Your task to perform on an android device: check the backup settings in the google photos Image 0: 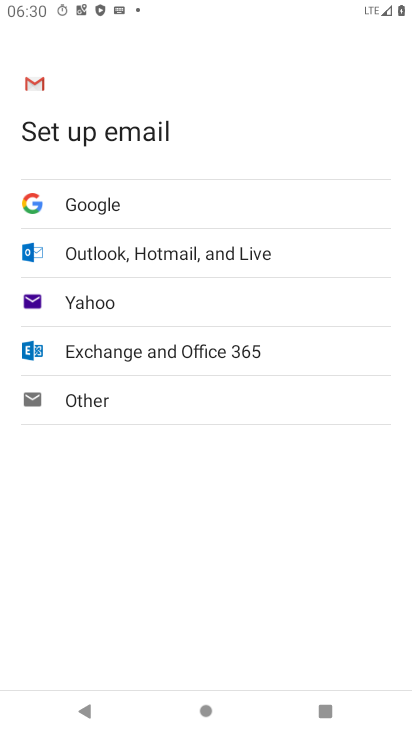
Step 0: press home button
Your task to perform on an android device: check the backup settings in the google photos Image 1: 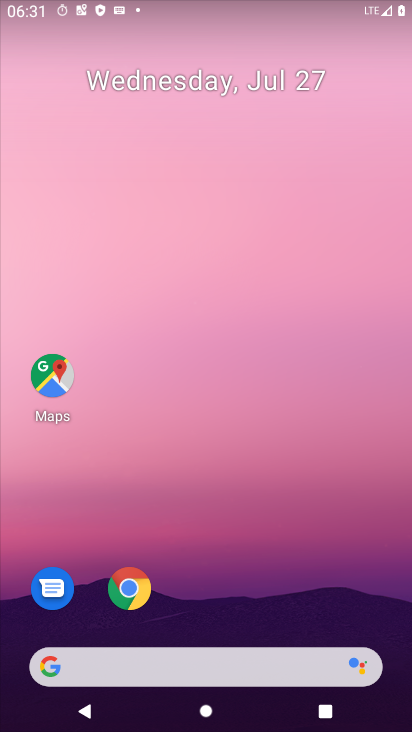
Step 1: drag from (329, 655) to (355, 133)
Your task to perform on an android device: check the backup settings in the google photos Image 2: 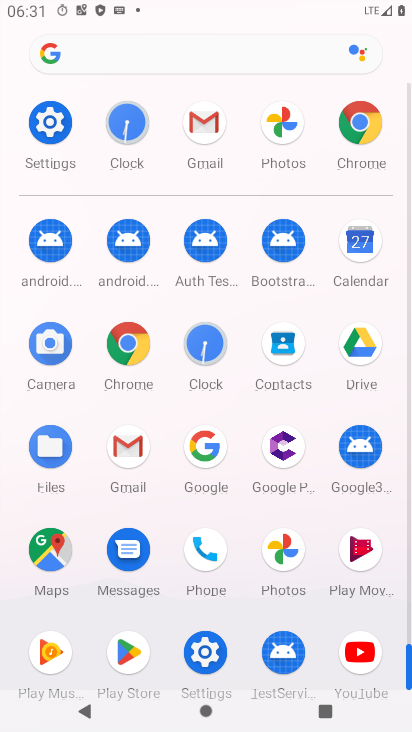
Step 2: click (277, 540)
Your task to perform on an android device: check the backup settings in the google photos Image 3: 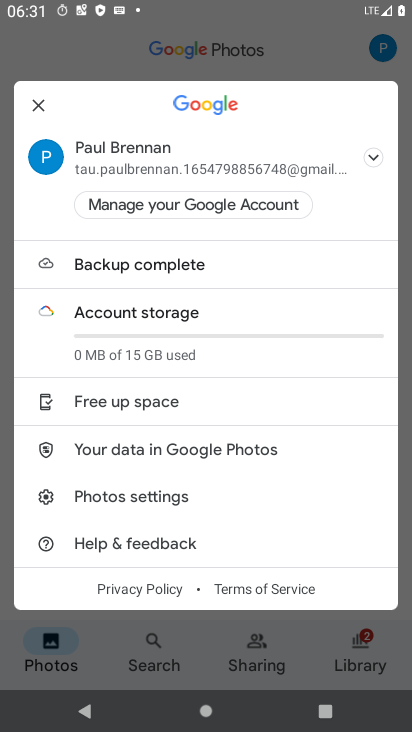
Step 3: click (186, 494)
Your task to perform on an android device: check the backup settings in the google photos Image 4: 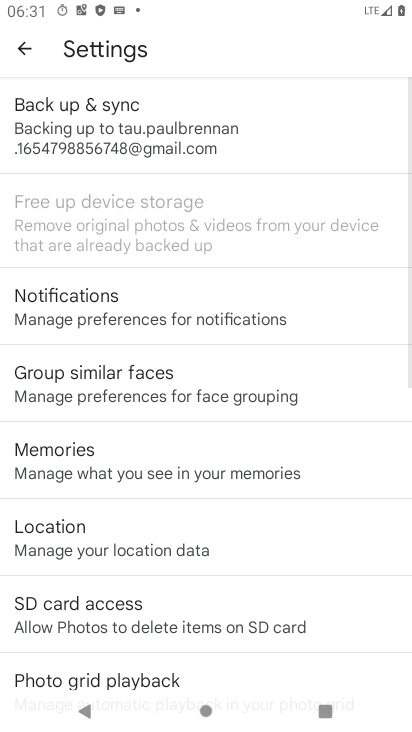
Step 4: click (232, 162)
Your task to perform on an android device: check the backup settings in the google photos Image 5: 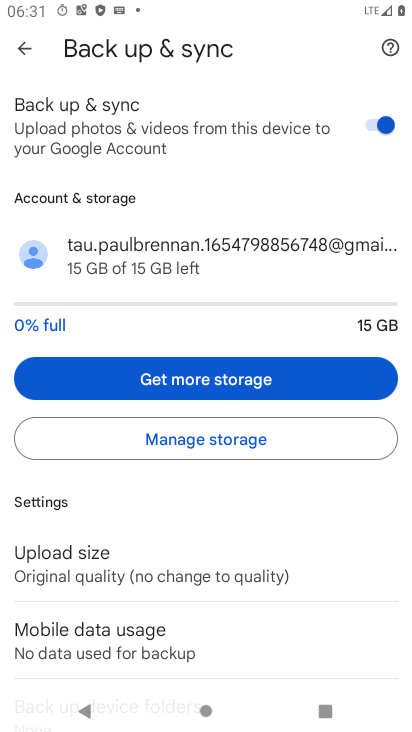
Step 5: task complete